Your task to perform on an android device: set an alarm Image 0: 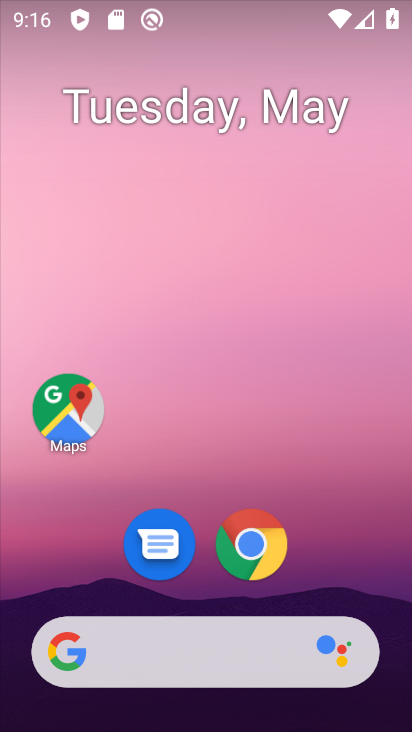
Step 0: drag from (339, 551) to (306, 196)
Your task to perform on an android device: set an alarm Image 1: 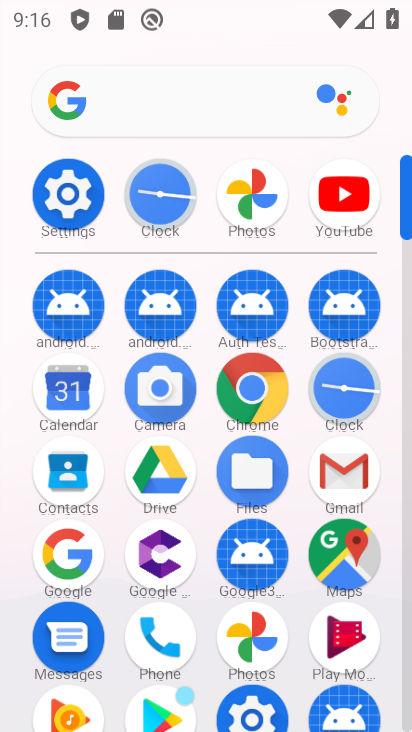
Step 1: click (344, 393)
Your task to perform on an android device: set an alarm Image 2: 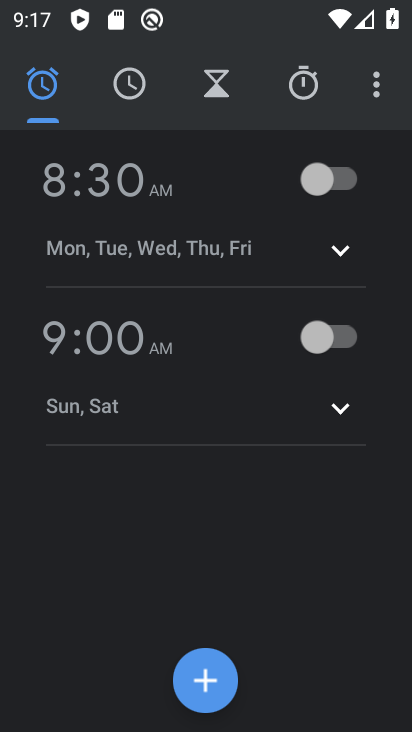
Step 2: click (195, 675)
Your task to perform on an android device: set an alarm Image 3: 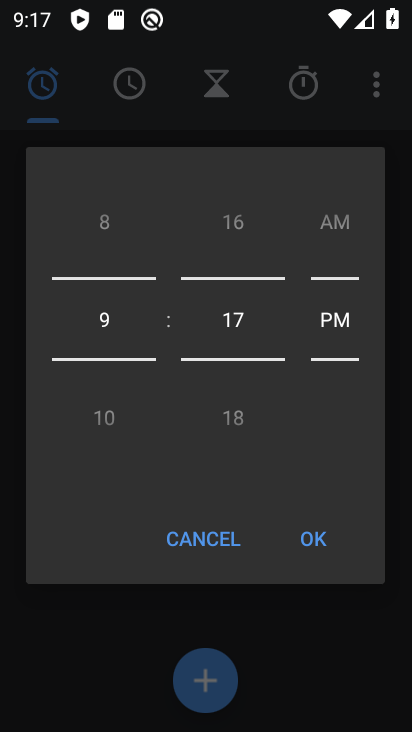
Step 3: click (321, 535)
Your task to perform on an android device: set an alarm Image 4: 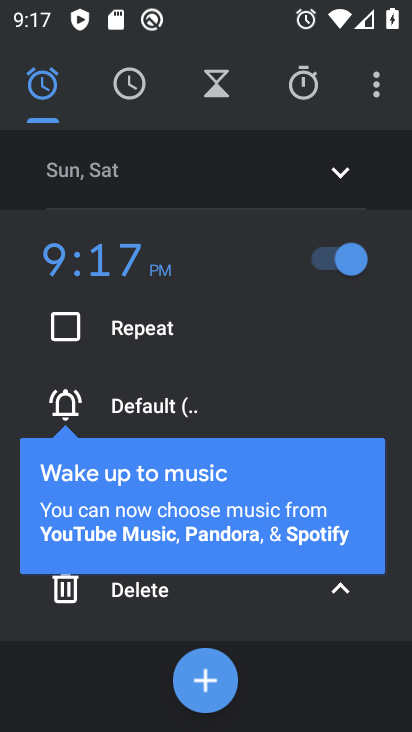
Step 4: task complete